Your task to perform on an android device: Open my contact list Image 0: 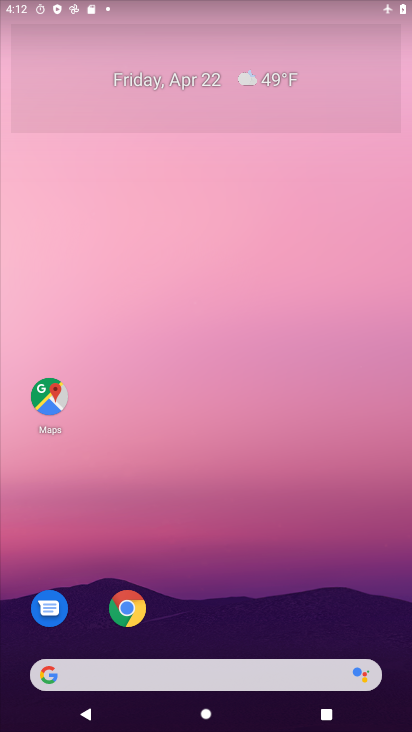
Step 0: drag from (309, 617) to (255, 84)
Your task to perform on an android device: Open my contact list Image 1: 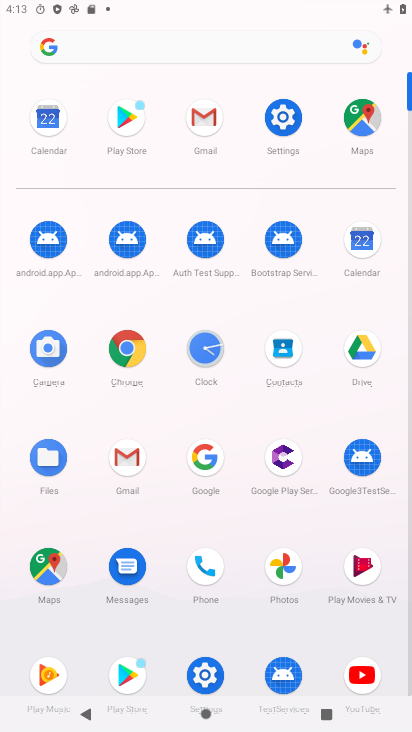
Step 1: drag from (245, 620) to (246, 520)
Your task to perform on an android device: Open my contact list Image 2: 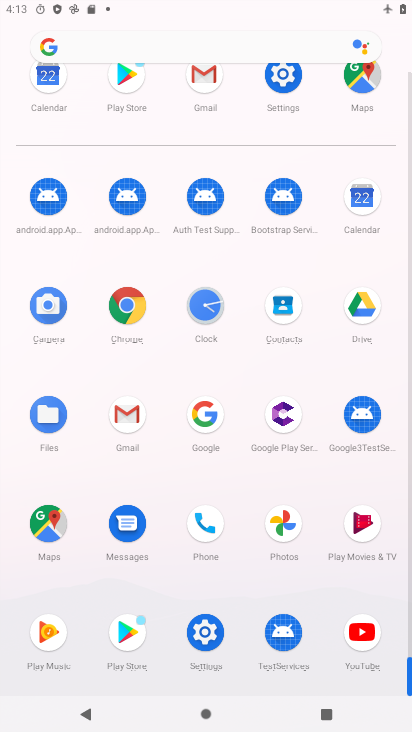
Step 2: click (282, 300)
Your task to perform on an android device: Open my contact list Image 3: 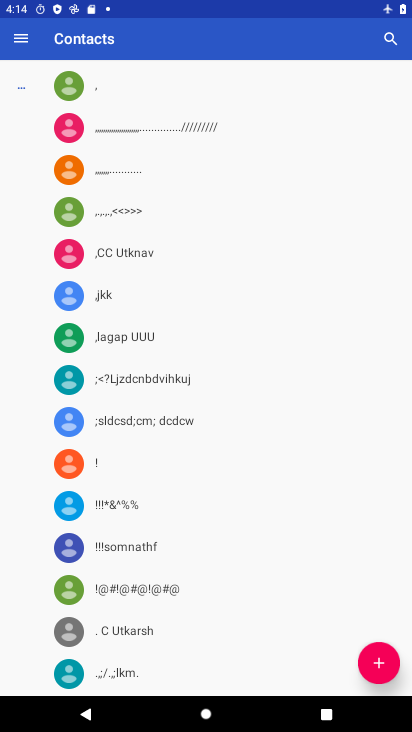
Step 3: task complete